Your task to perform on an android device: turn off javascript in the chrome app Image 0: 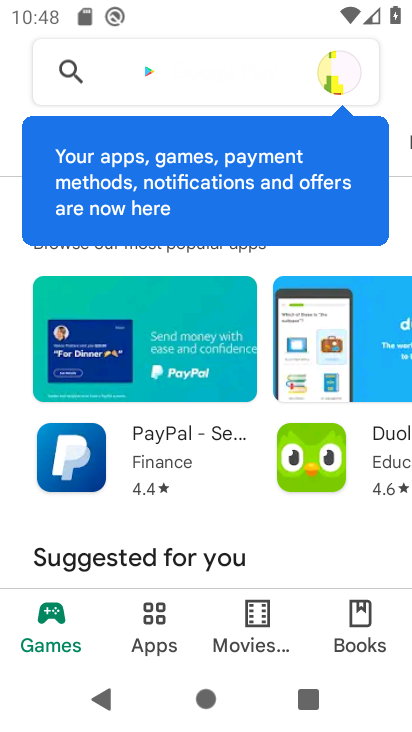
Step 0: press home button
Your task to perform on an android device: turn off javascript in the chrome app Image 1: 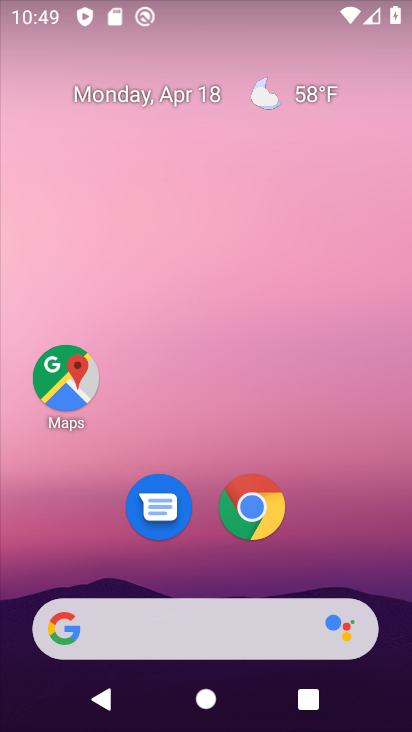
Step 1: click (230, 513)
Your task to perform on an android device: turn off javascript in the chrome app Image 2: 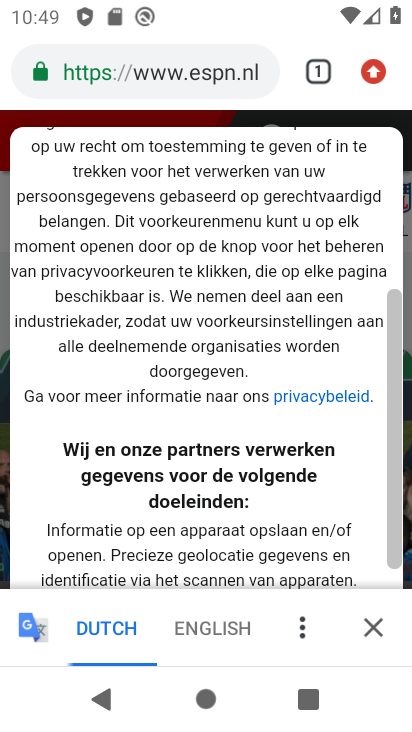
Step 2: click (369, 62)
Your task to perform on an android device: turn off javascript in the chrome app Image 3: 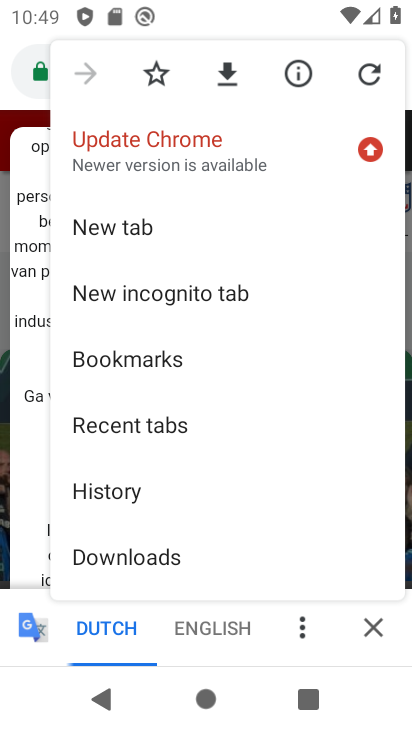
Step 3: drag from (146, 505) to (156, 62)
Your task to perform on an android device: turn off javascript in the chrome app Image 4: 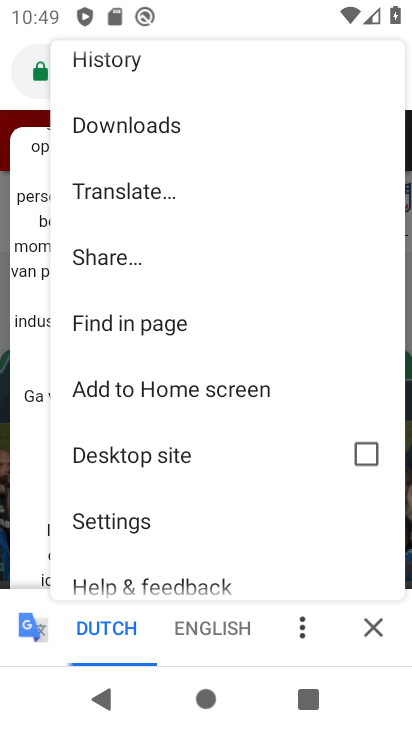
Step 4: click (157, 508)
Your task to perform on an android device: turn off javascript in the chrome app Image 5: 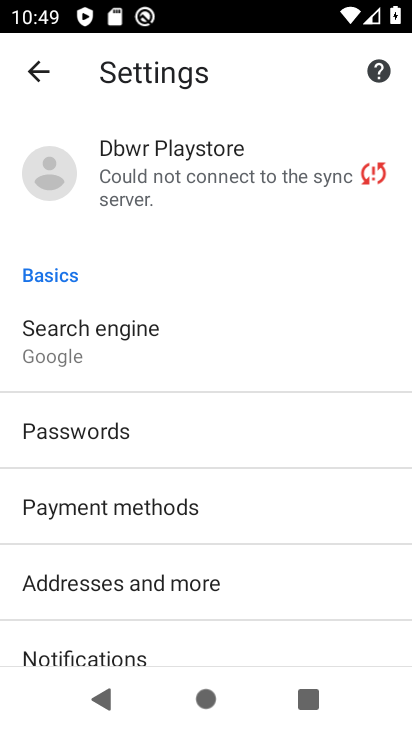
Step 5: drag from (124, 622) to (163, 233)
Your task to perform on an android device: turn off javascript in the chrome app Image 6: 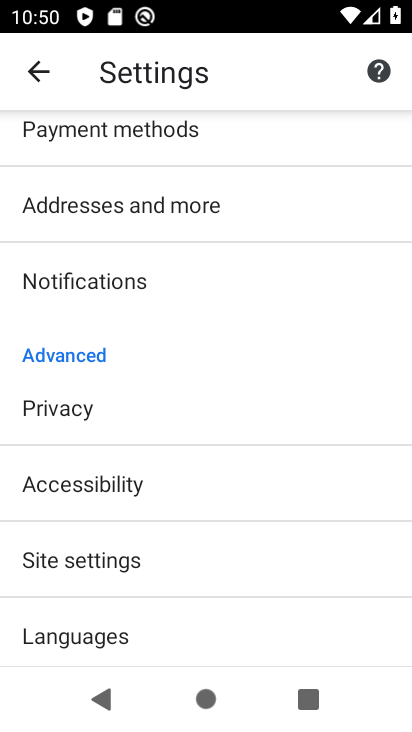
Step 6: click (123, 571)
Your task to perform on an android device: turn off javascript in the chrome app Image 7: 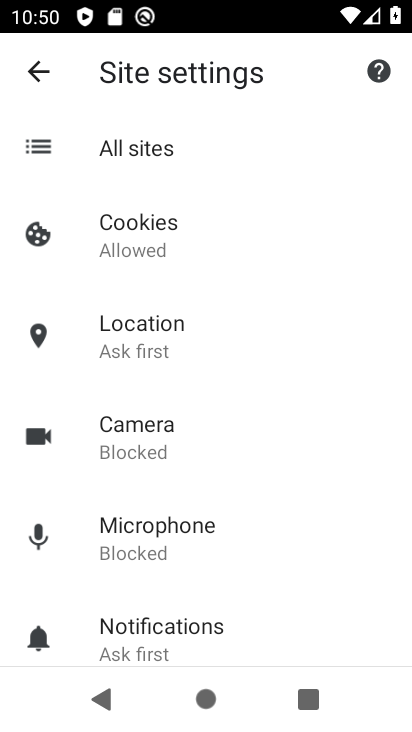
Step 7: drag from (113, 560) to (179, 187)
Your task to perform on an android device: turn off javascript in the chrome app Image 8: 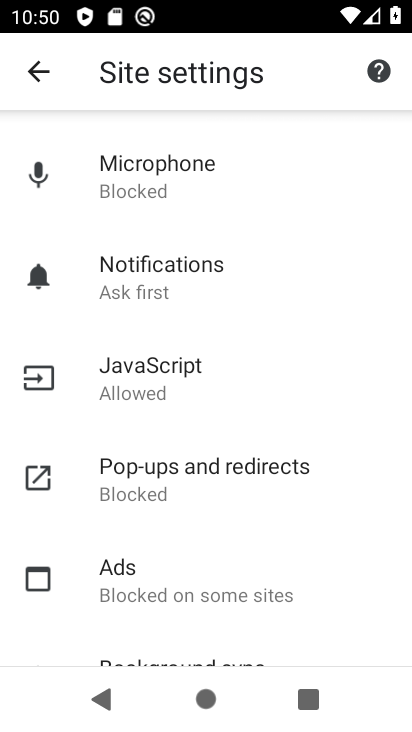
Step 8: click (146, 389)
Your task to perform on an android device: turn off javascript in the chrome app Image 9: 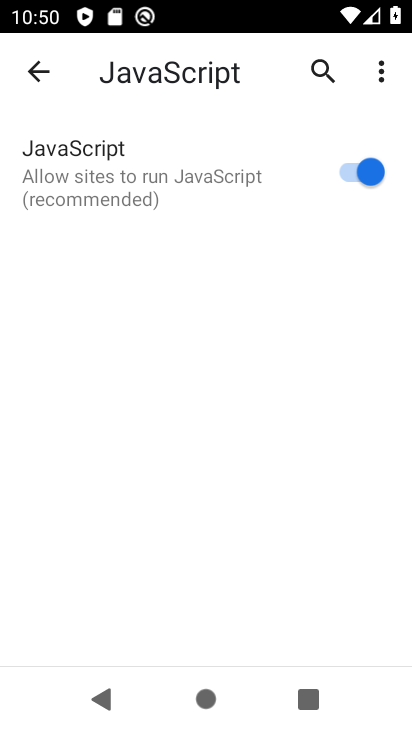
Step 9: click (371, 172)
Your task to perform on an android device: turn off javascript in the chrome app Image 10: 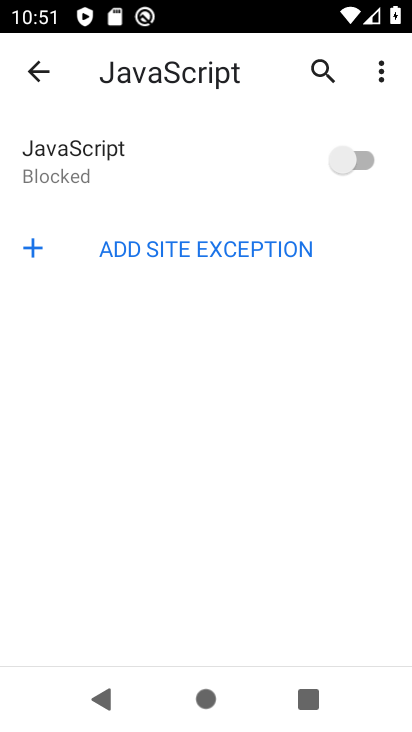
Step 10: task complete